Your task to perform on an android device: turn off priority inbox in the gmail app Image 0: 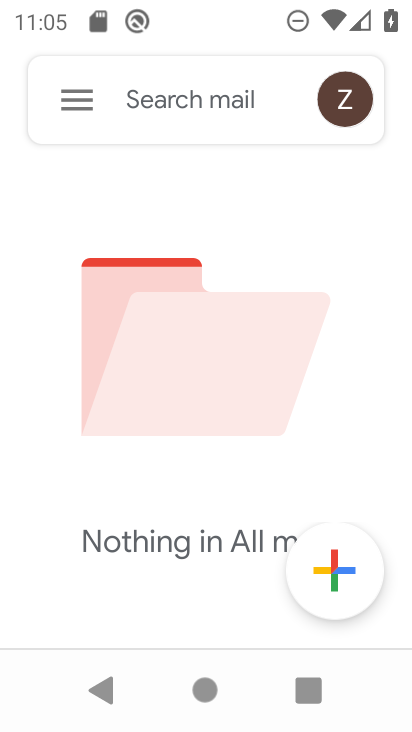
Step 0: click (67, 104)
Your task to perform on an android device: turn off priority inbox in the gmail app Image 1: 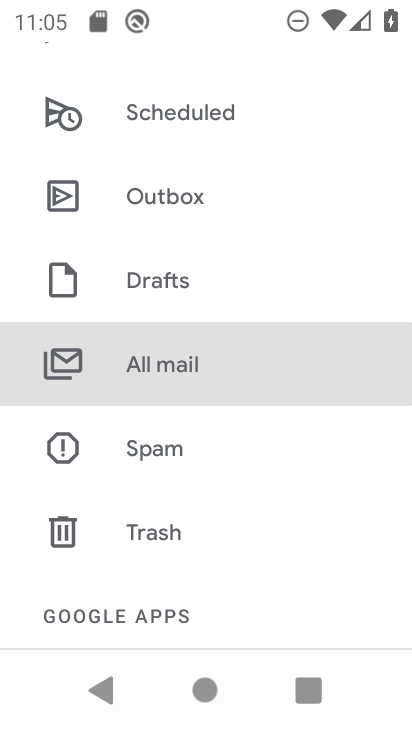
Step 1: drag from (209, 566) to (248, 180)
Your task to perform on an android device: turn off priority inbox in the gmail app Image 2: 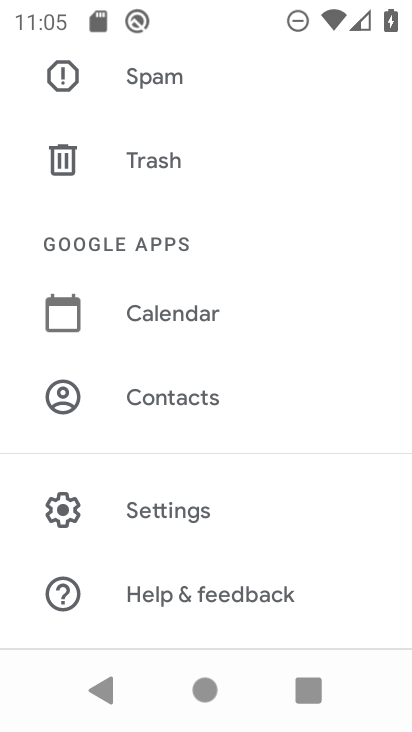
Step 2: click (166, 506)
Your task to perform on an android device: turn off priority inbox in the gmail app Image 3: 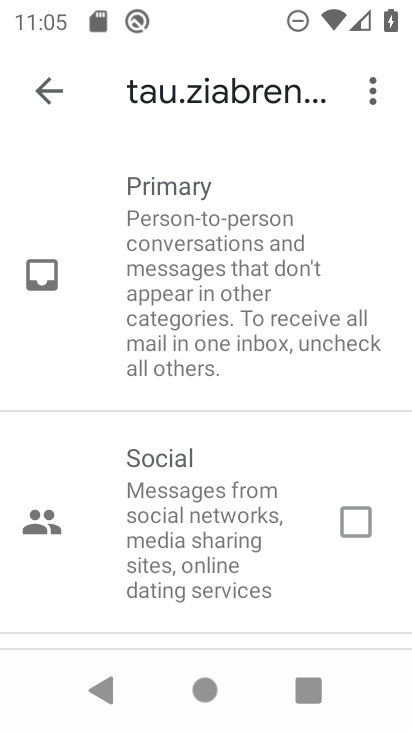
Step 3: press back button
Your task to perform on an android device: turn off priority inbox in the gmail app Image 4: 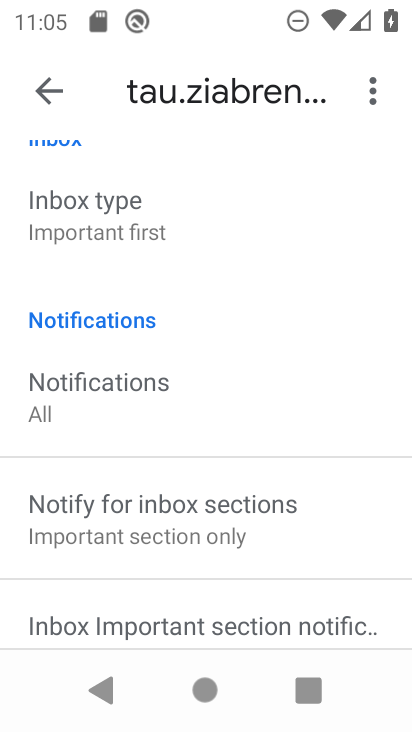
Step 4: click (287, 566)
Your task to perform on an android device: turn off priority inbox in the gmail app Image 5: 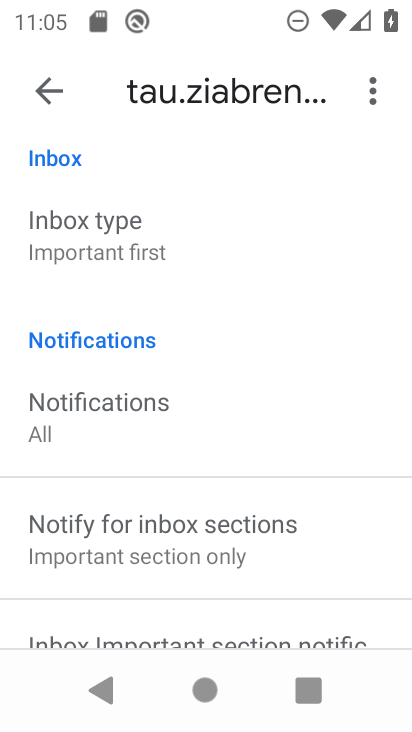
Step 5: click (96, 244)
Your task to perform on an android device: turn off priority inbox in the gmail app Image 6: 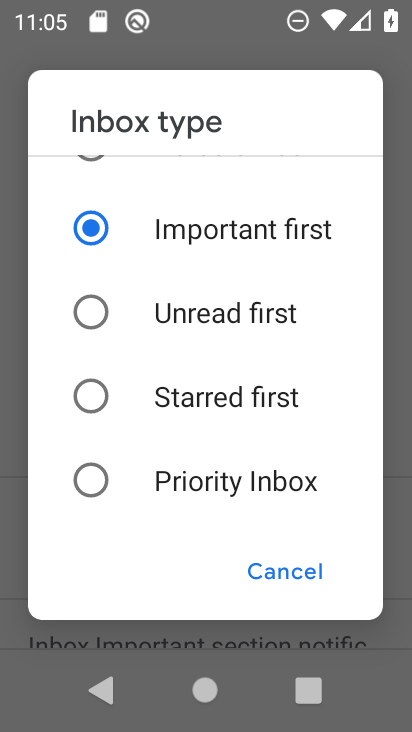
Step 6: task complete